Your task to perform on an android device: manage bookmarks in the chrome app Image 0: 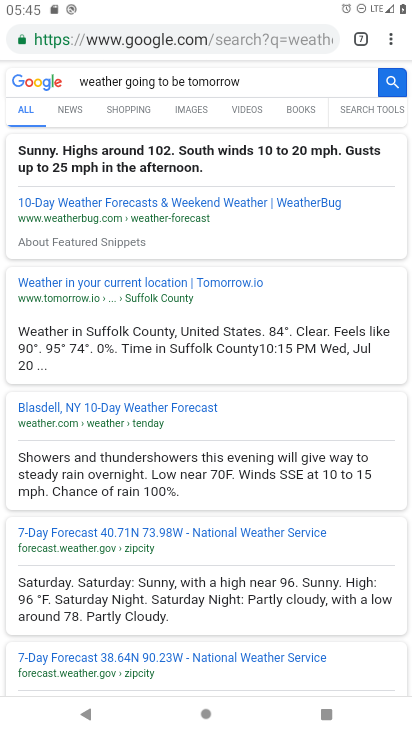
Step 0: press home button
Your task to perform on an android device: manage bookmarks in the chrome app Image 1: 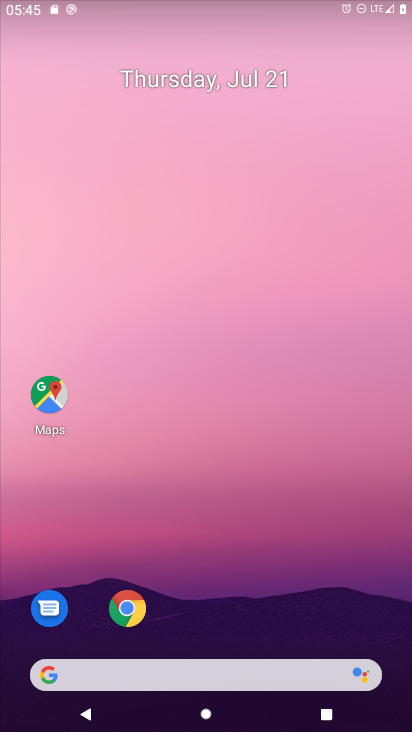
Step 1: drag from (232, 622) to (248, 4)
Your task to perform on an android device: manage bookmarks in the chrome app Image 2: 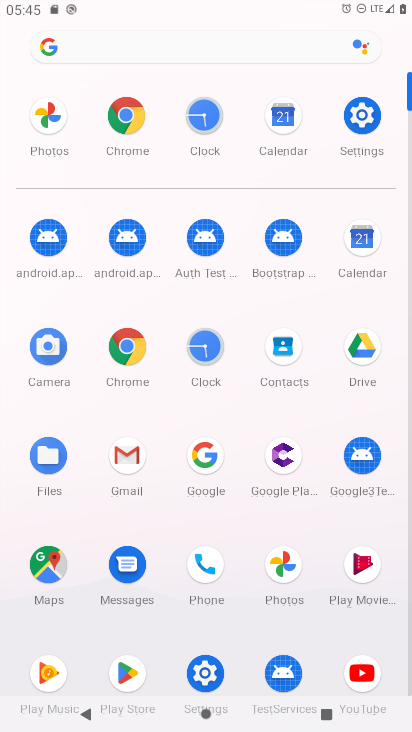
Step 2: click (125, 350)
Your task to perform on an android device: manage bookmarks in the chrome app Image 3: 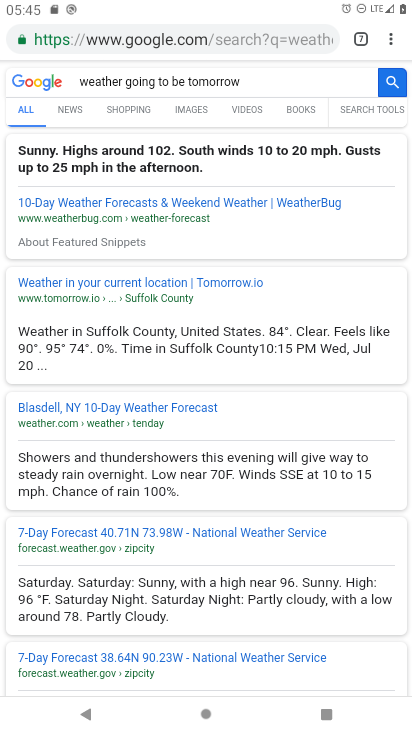
Step 3: task complete